Your task to perform on an android device: delete the emails in spam in the gmail app Image 0: 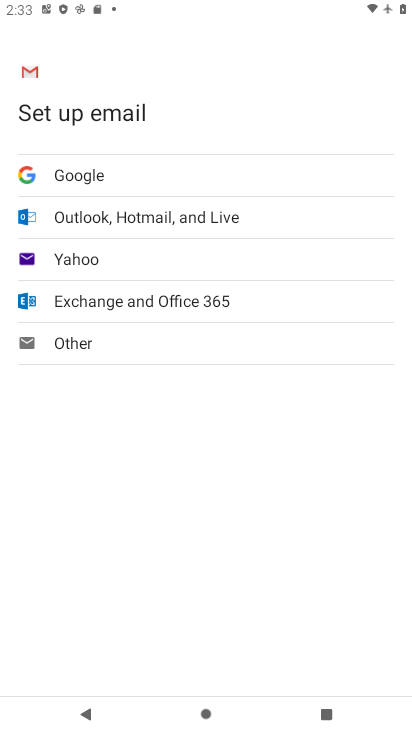
Step 0: press home button
Your task to perform on an android device: delete the emails in spam in the gmail app Image 1: 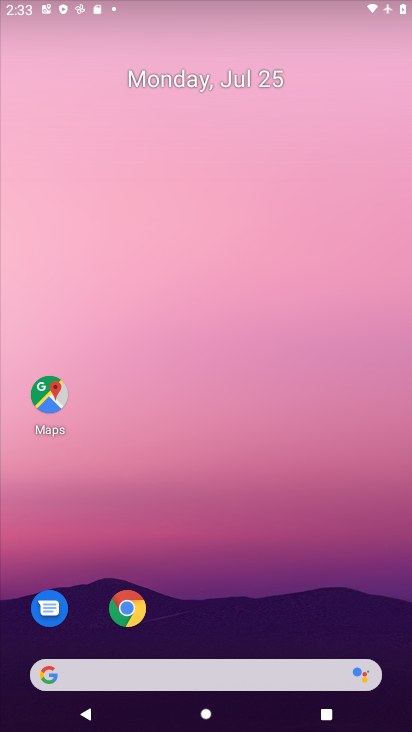
Step 1: drag from (200, 552) to (286, 117)
Your task to perform on an android device: delete the emails in spam in the gmail app Image 2: 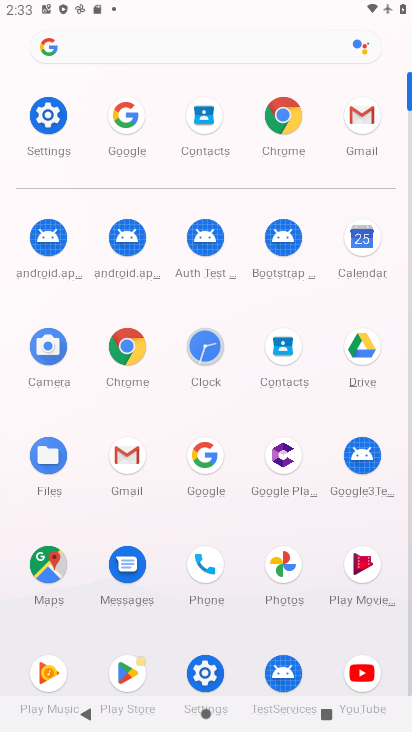
Step 2: click (134, 465)
Your task to perform on an android device: delete the emails in spam in the gmail app Image 3: 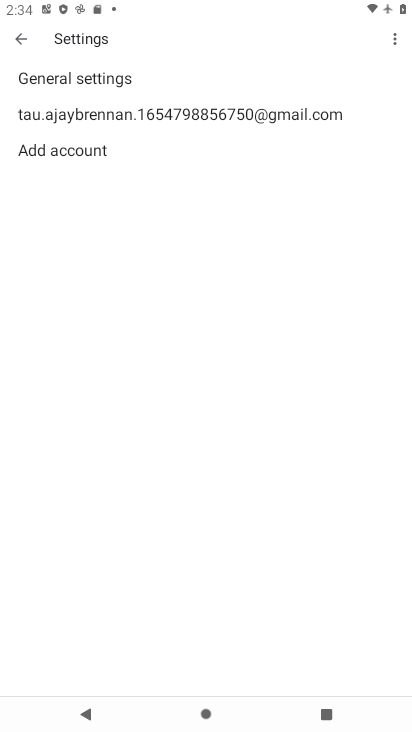
Step 3: click (25, 33)
Your task to perform on an android device: delete the emails in spam in the gmail app Image 4: 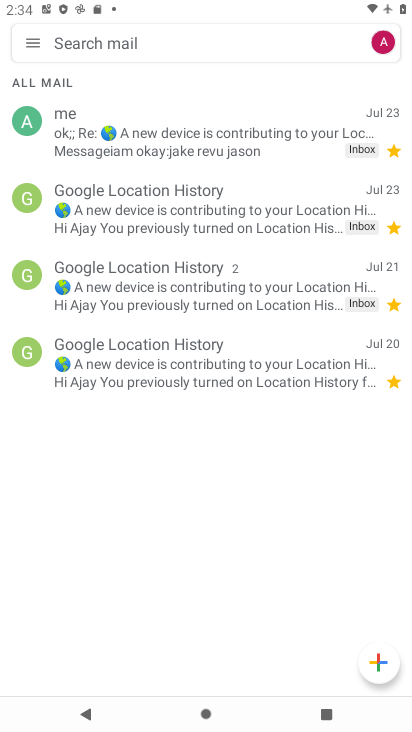
Step 4: click (32, 51)
Your task to perform on an android device: delete the emails in spam in the gmail app Image 5: 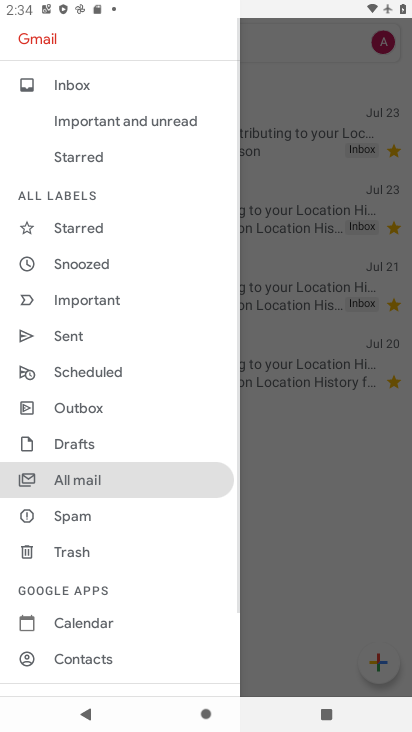
Step 5: click (97, 526)
Your task to perform on an android device: delete the emails in spam in the gmail app Image 6: 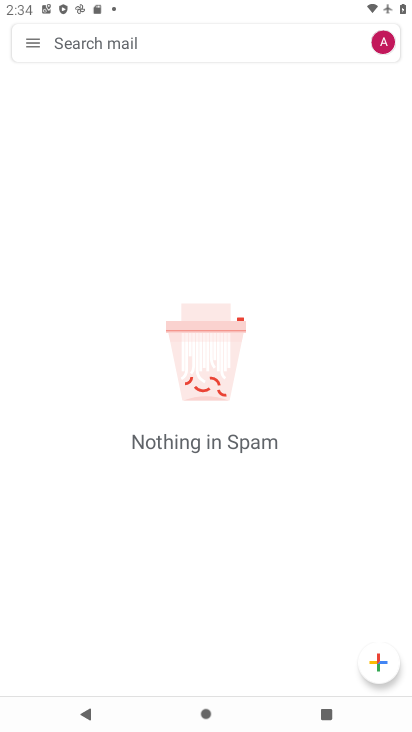
Step 6: click (35, 54)
Your task to perform on an android device: delete the emails in spam in the gmail app Image 7: 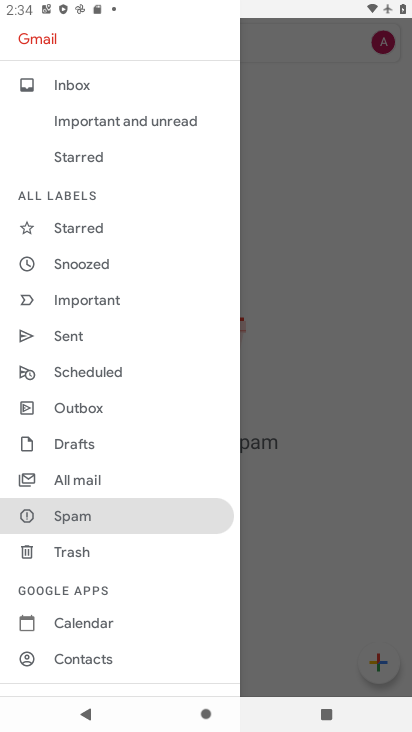
Step 7: click (119, 523)
Your task to perform on an android device: delete the emails in spam in the gmail app Image 8: 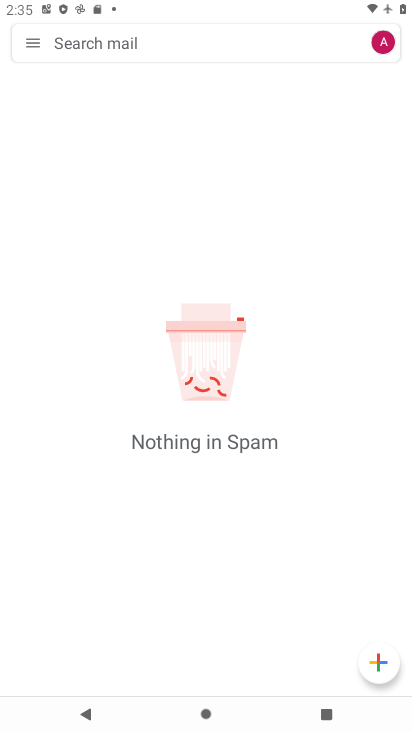
Step 8: task complete